Your task to perform on an android device: Search for seafood restaurants on Google Maps Image 0: 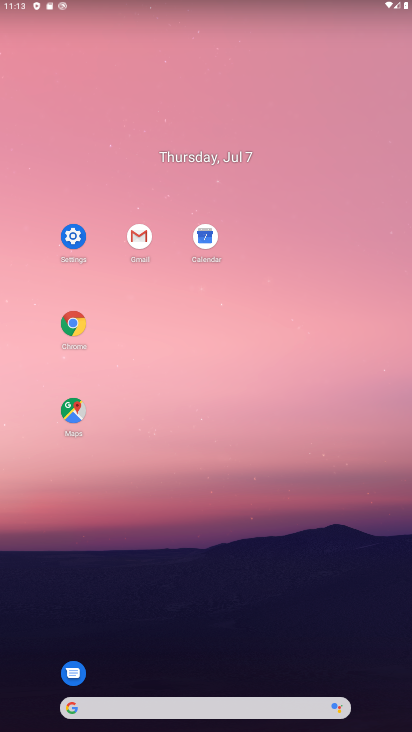
Step 0: click (75, 412)
Your task to perform on an android device: Search for seafood restaurants on Google Maps Image 1: 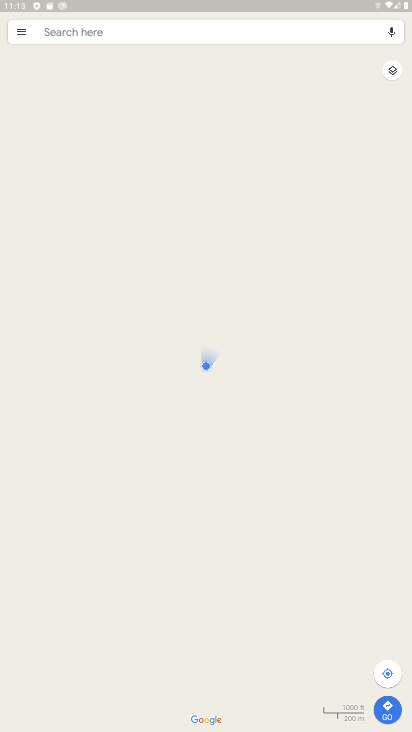
Step 1: click (145, 34)
Your task to perform on an android device: Search for seafood restaurants on Google Maps Image 2: 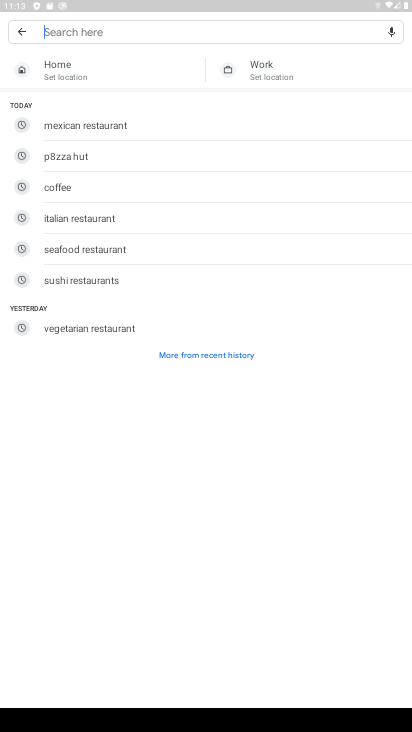
Step 2: type "seafood restaurants"
Your task to perform on an android device: Search for seafood restaurants on Google Maps Image 3: 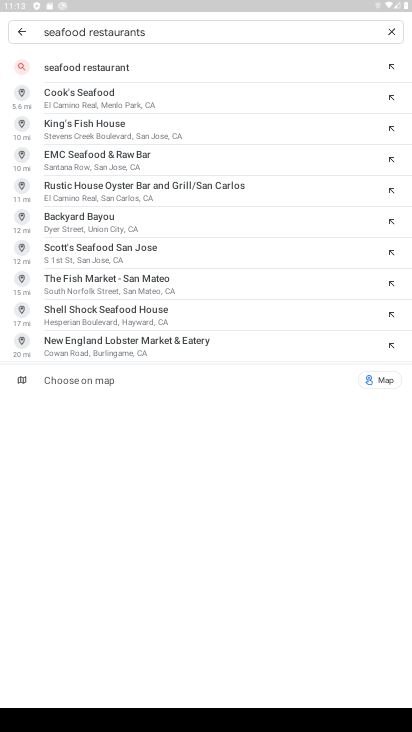
Step 3: click (132, 59)
Your task to perform on an android device: Search for seafood restaurants on Google Maps Image 4: 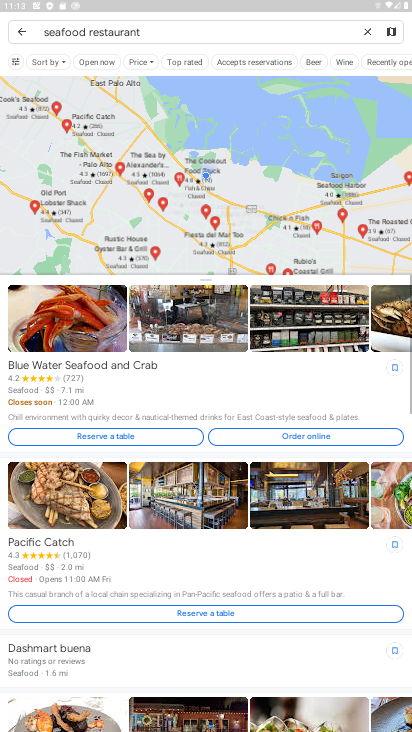
Step 4: task complete